Your task to perform on an android device: Open my contact list Image 0: 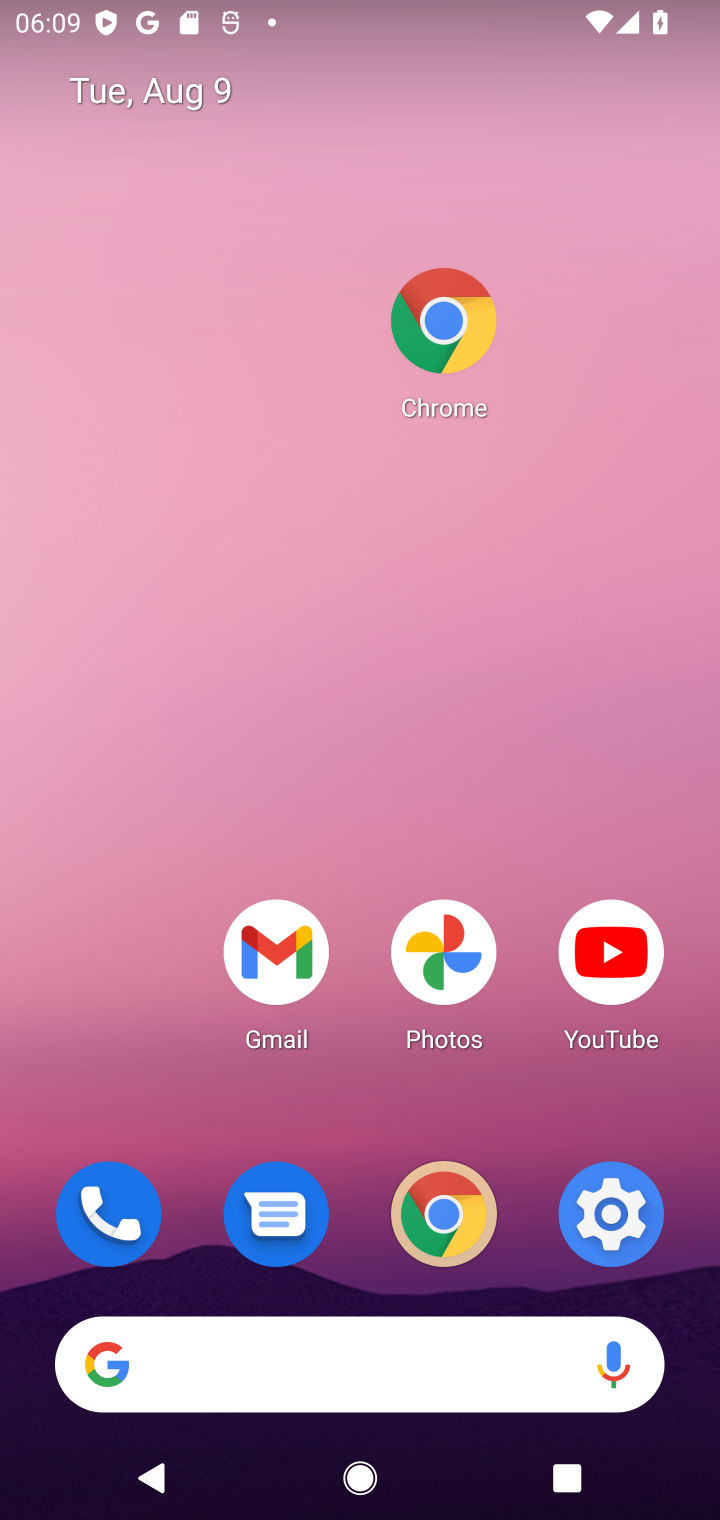
Step 0: drag from (521, 1409) to (73, 156)
Your task to perform on an android device: Open my contact list Image 1: 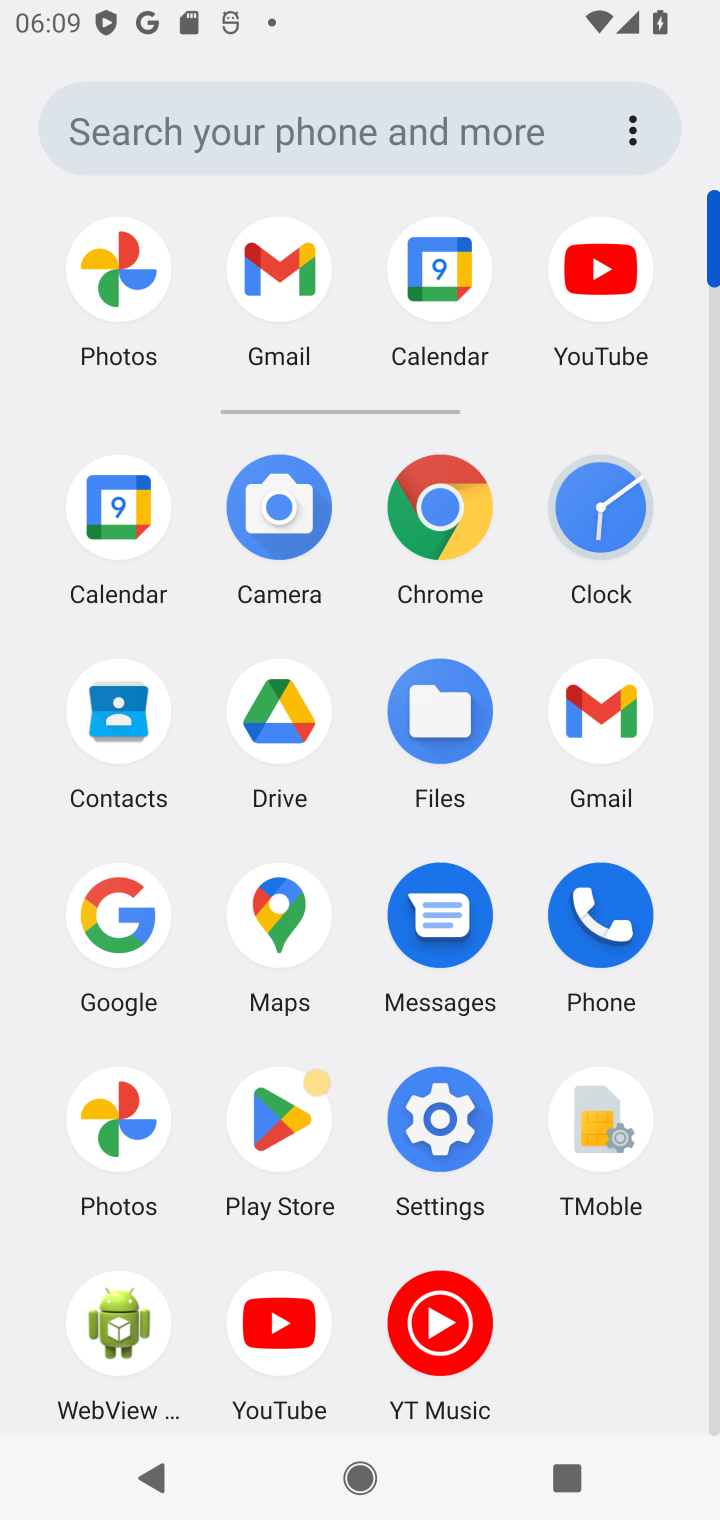
Step 1: click (567, 915)
Your task to perform on an android device: Open my contact list Image 2: 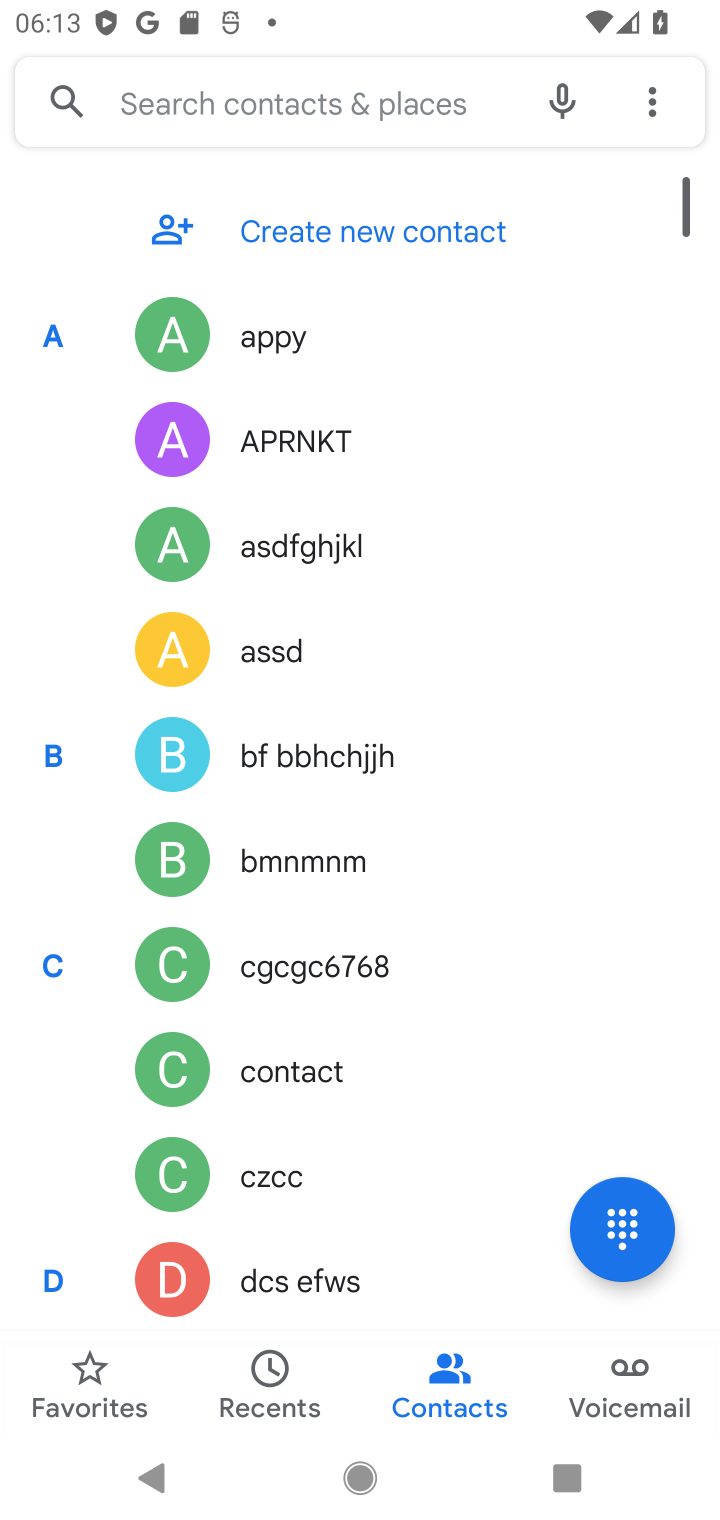
Step 2: task complete